Your task to perform on an android device: open sync settings in chrome Image 0: 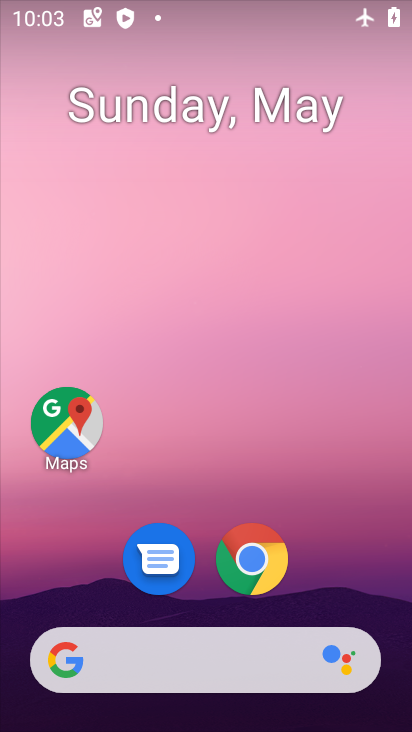
Step 0: drag from (216, 609) to (139, 76)
Your task to perform on an android device: open sync settings in chrome Image 1: 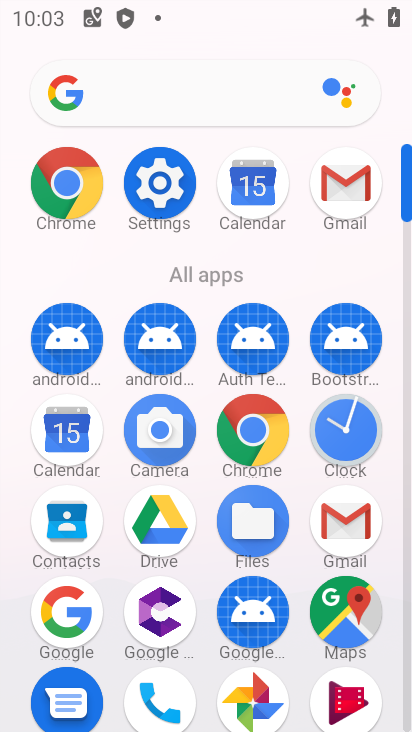
Step 1: click (71, 204)
Your task to perform on an android device: open sync settings in chrome Image 2: 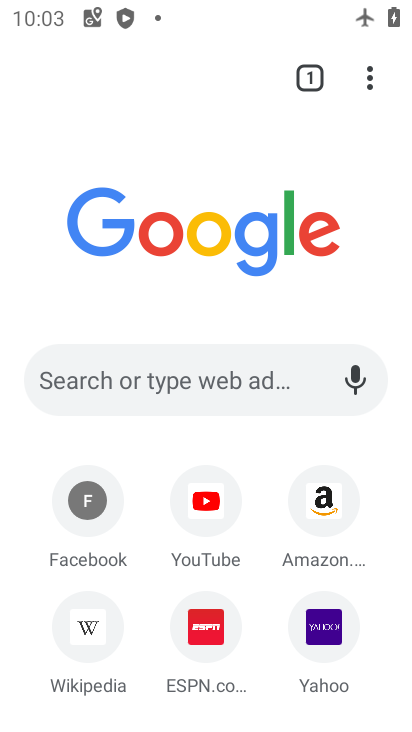
Step 2: click (372, 81)
Your task to perform on an android device: open sync settings in chrome Image 3: 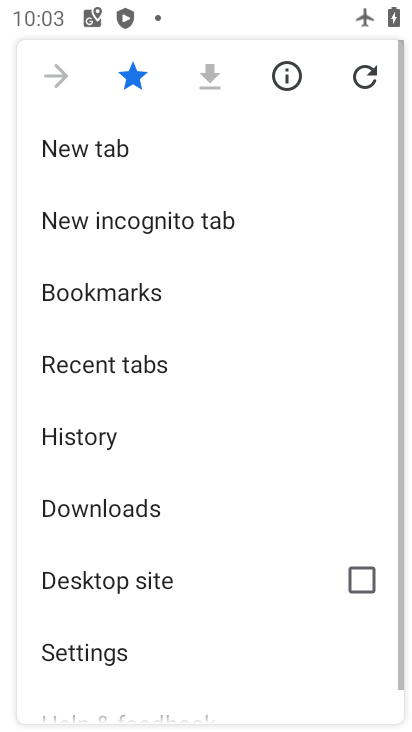
Step 3: click (176, 568)
Your task to perform on an android device: open sync settings in chrome Image 4: 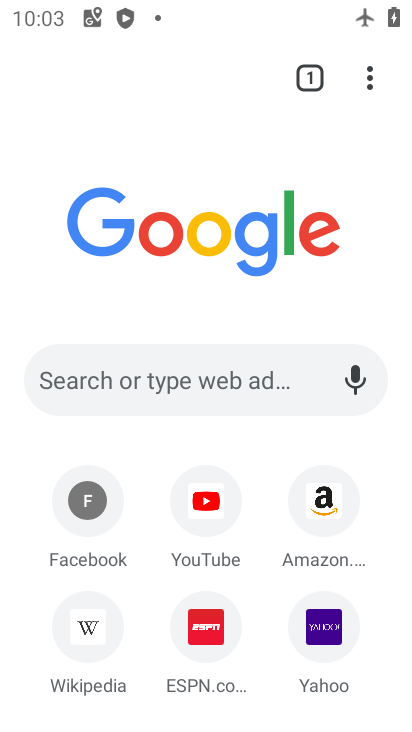
Step 4: click (373, 83)
Your task to perform on an android device: open sync settings in chrome Image 5: 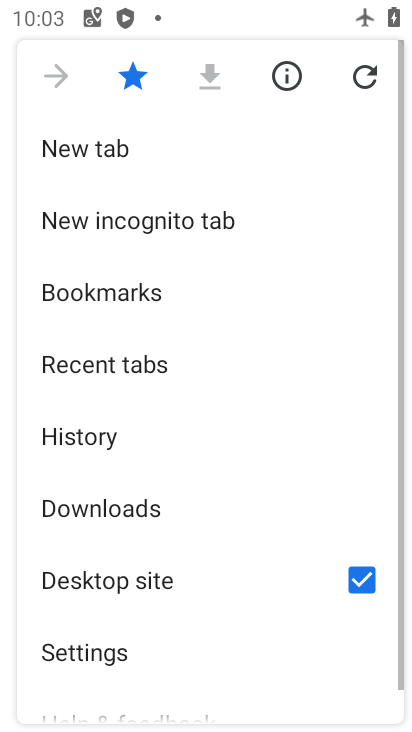
Step 5: click (139, 653)
Your task to perform on an android device: open sync settings in chrome Image 6: 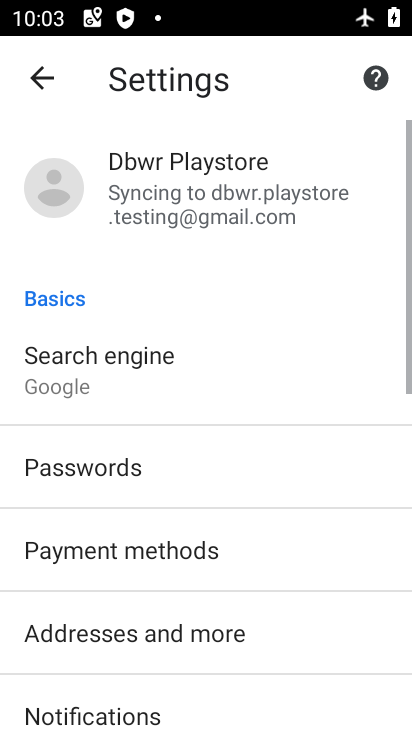
Step 6: drag from (139, 631) to (68, 117)
Your task to perform on an android device: open sync settings in chrome Image 7: 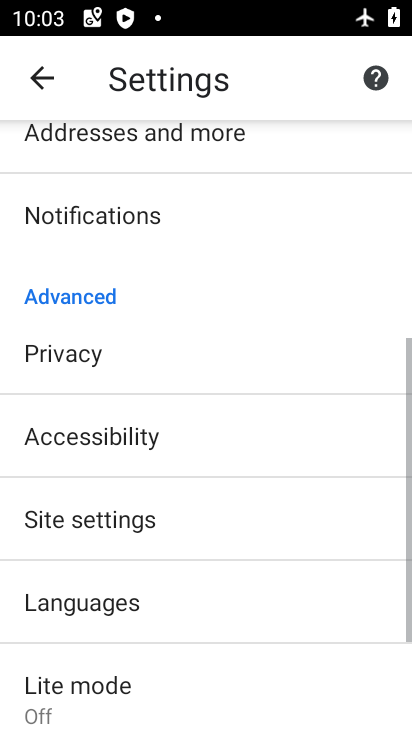
Step 7: drag from (108, 189) to (113, 658)
Your task to perform on an android device: open sync settings in chrome Image 8: 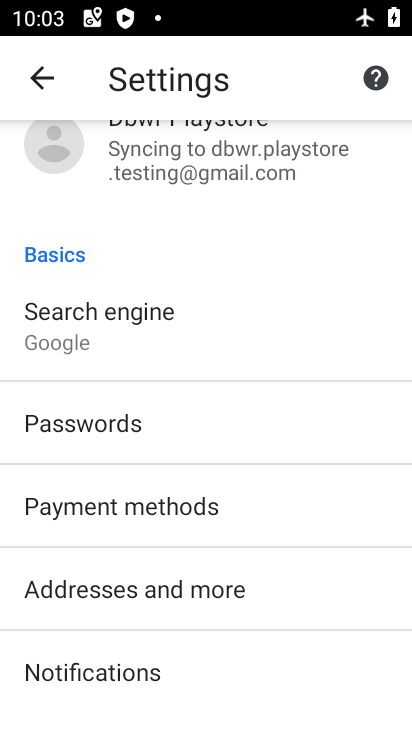
Step 8: click (143, 167)
Your task to perform on an android device: open sync settings in chrome Image 9: 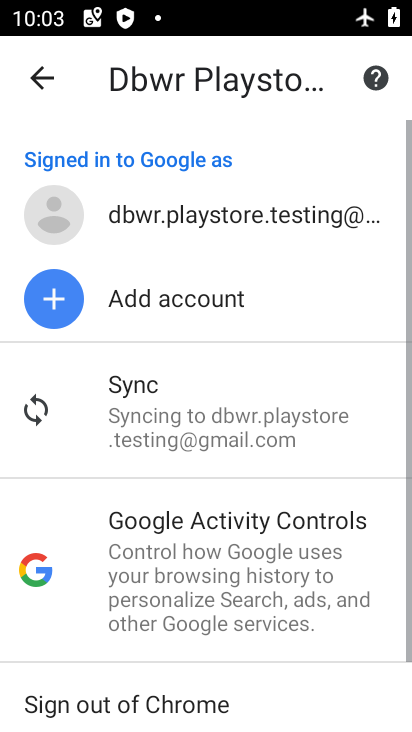
Step 9: click (194, 410)
Your task to perform on an android device: open sync settings in chrome Image 10: 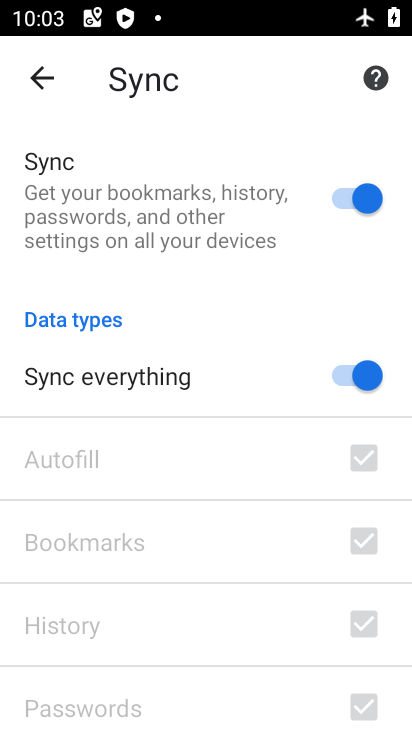
Step 10: task complete